Your task to perform on an android device: Is it going to rain this weekend? Image 0: 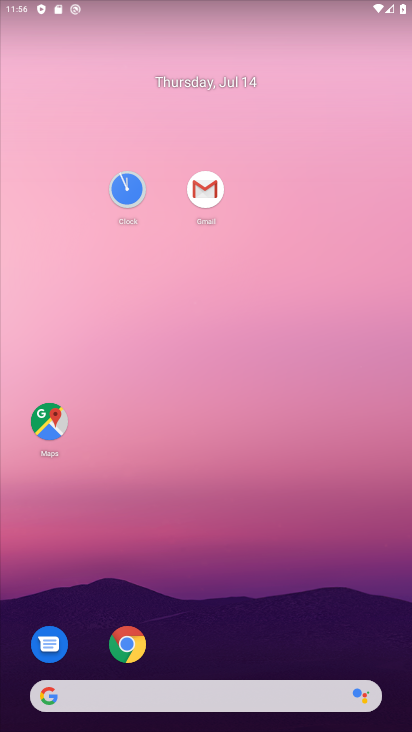
Step 0: click (130, 641)
Your task to perform on an android device: Is it going to rain this weekend? Image 1: 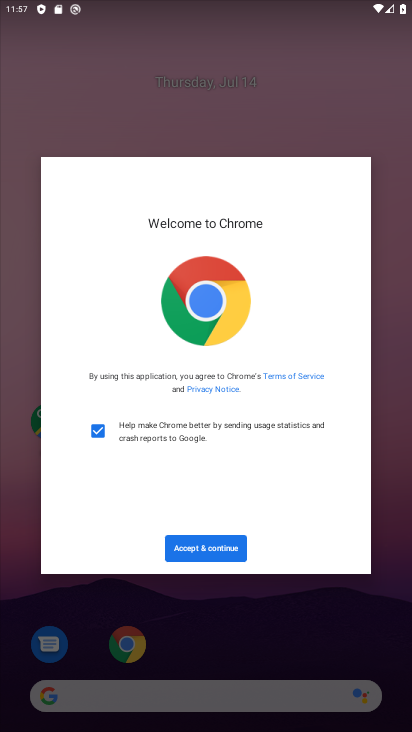
Step 1: click (235, 543)
Your task to perform on an android device: Is it going to rain this weekend? Image 2: 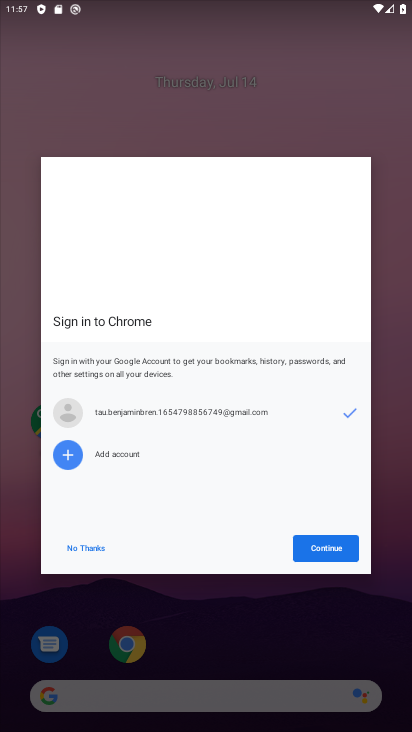
Step 2: click (296, 549)
Your task to perform on an android device: Is it going to rain this weekend? Image 3: 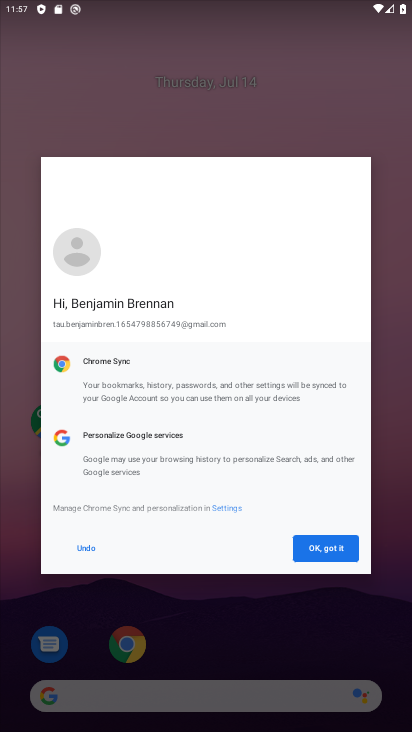
Step 3: click (296, 549)
Your task to perform on an android device: Is it going to rain this weekend? Image 4: 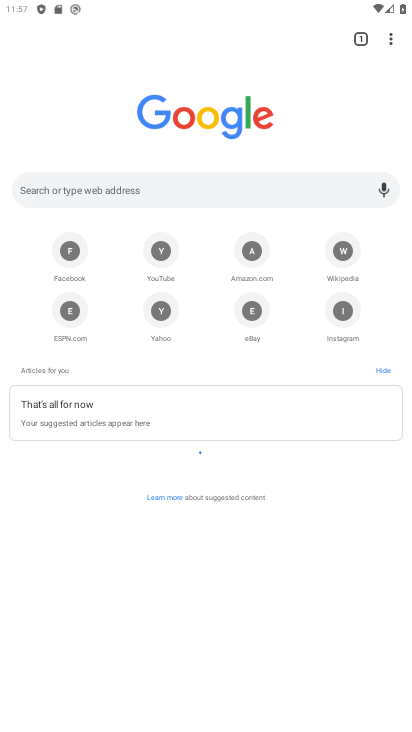
Step 4: click (230, 193)
Your task to perform on an android device: Is it going to rain this weekend? Image 5: 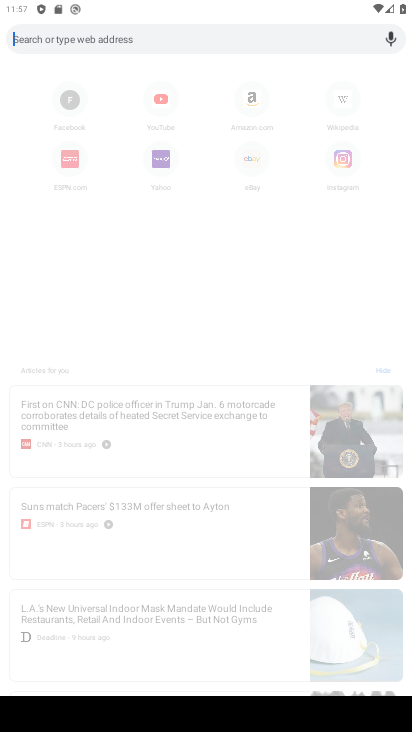
Step 5: type "weather"
Your task to perform on an android device: Is it going to rain this weekend? Image 6: 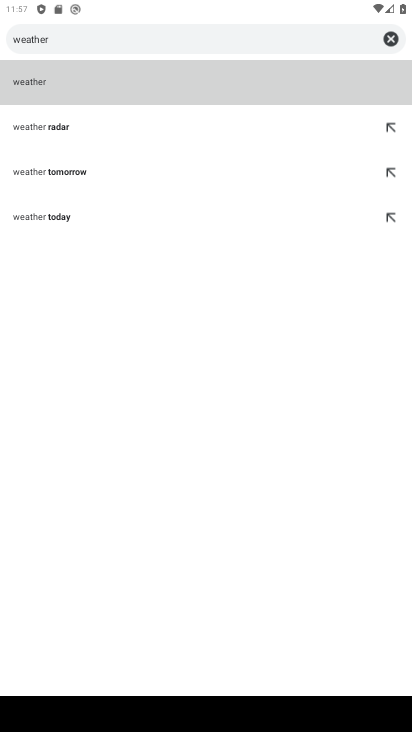
Step 6: click (181, 79)
Your task to perform on an android device: Is it going to rain this weekend? Image 7: 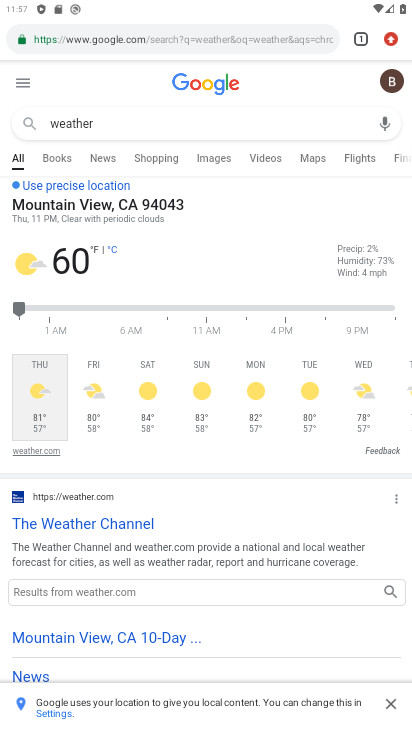
Step 7: click (147, 365)
Your task to perform on an android device: Is it going to rain this weekend? Image 8: 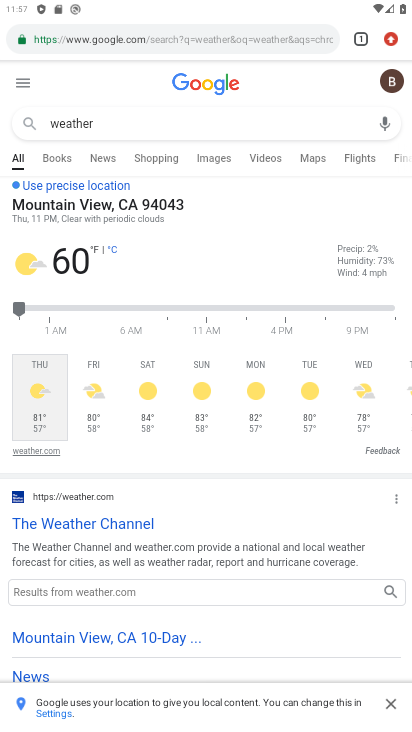
Step 8: click (147, 367)
Your task to perform on an android device: Is it going to rain this weekend? Image 9: 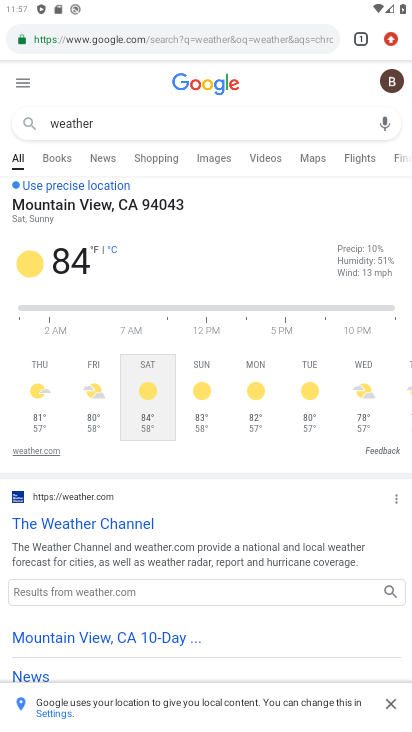
Step 9: task complete